Your task to perform on an android device: Open accessibility settings Image 0: 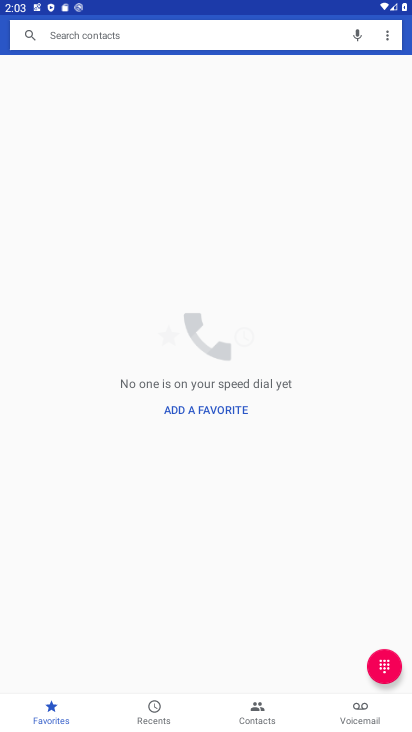
Step 0: press home button
Your task to perform on an android device: Open accessibility settings Image 1: 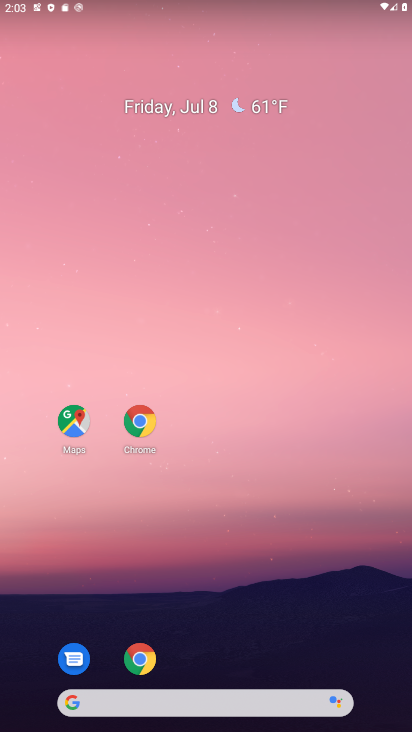
Step 1: drag from (225, 674) to (170, 53)
Your task to perform on an android device: Open accessibility settings Image 2: 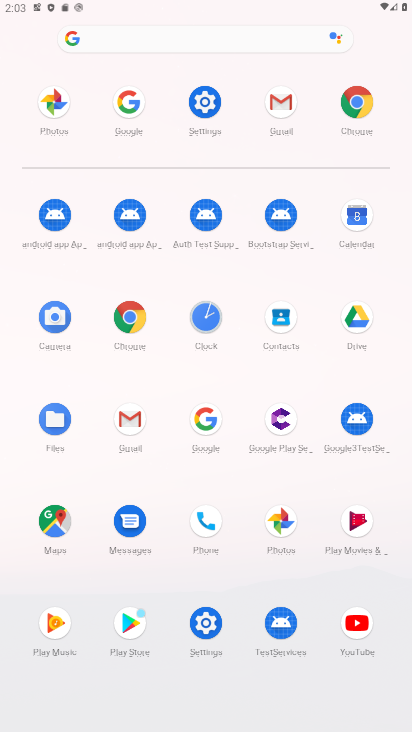
Step 2: click (206, 106)
Your task to perform on an android device: Open accessibility settings Image 3: 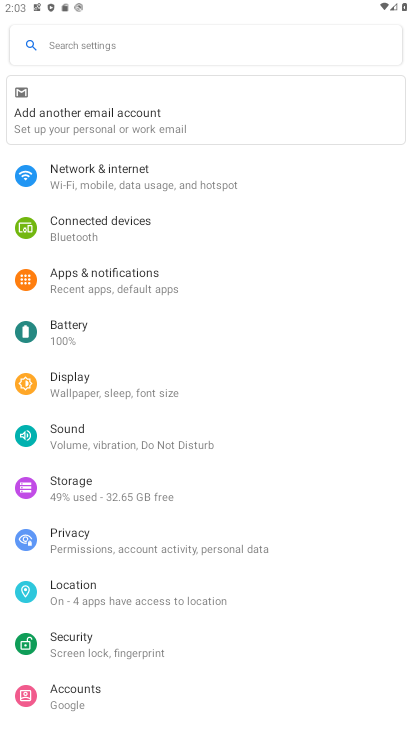
Step 3: drag from (175, 495) to (166, 190)
Your task to perform on an android device: Open accessibility settings Image 4: 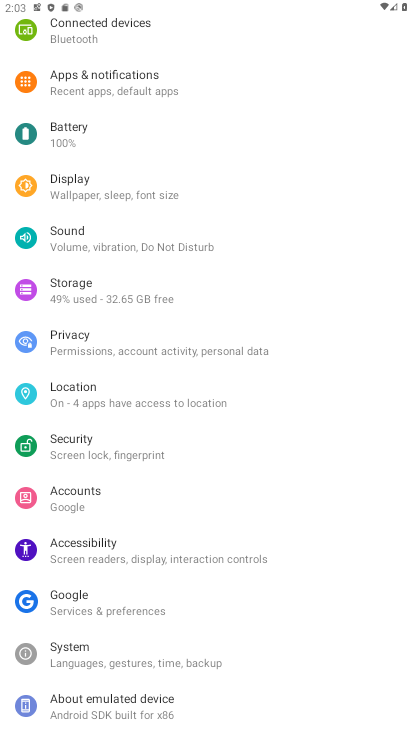
Step 4: click (76, 538)
Your task to perform on an android device: Open accessibility settings Image 5: 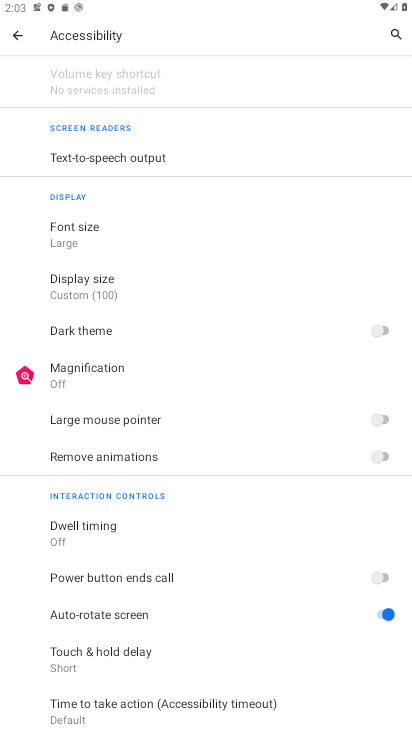
Step 5: task complete